Your task to perform on an android device: Open Google Maps Image 0: 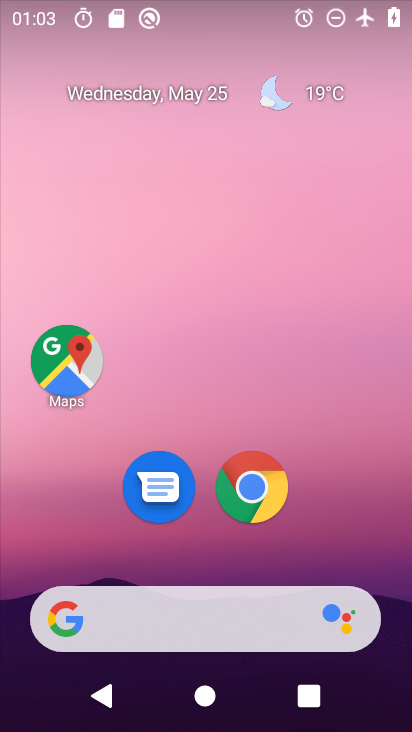
Step 0: click (71, 367)
Your task to perform on an android device: Open Google Maps Image 1: 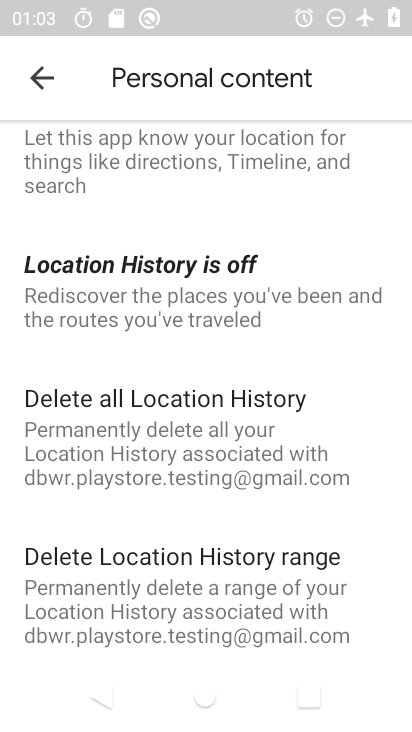
Step 1: click (41, 79)
Your task to perform on an android device: Open Google Maps Image 2: 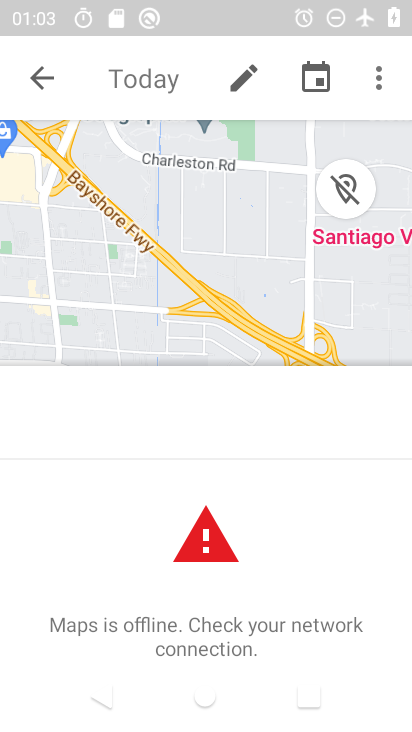
Step 2: click (52, 75)
Your task to perform on an android device: Open Google Maps Image 3: 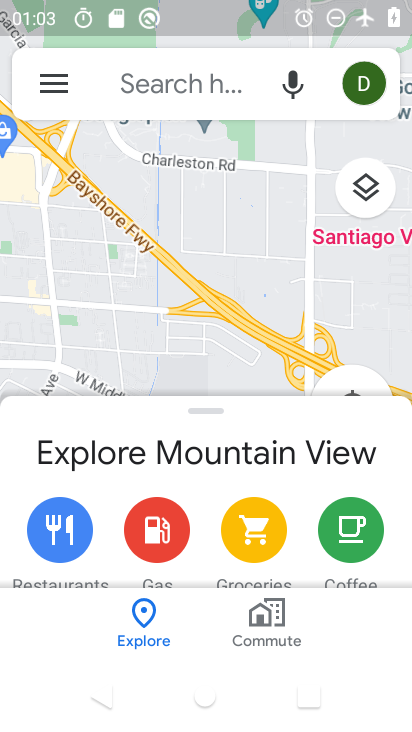
Step 3: task complete